Your task to perform on an android device: Open the phone app and click the voicemail tab. Image 0: 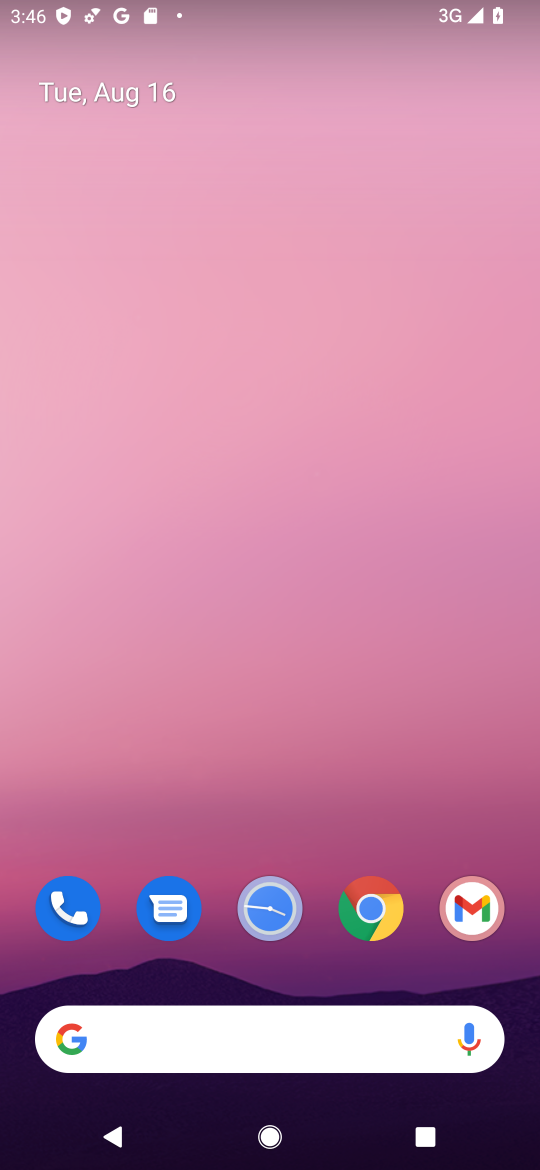
Step 0: drag from (288, 845) to (351, 235)
Your task to perform on an android device: Open the phone app and click the voicemail tab. Image 1: 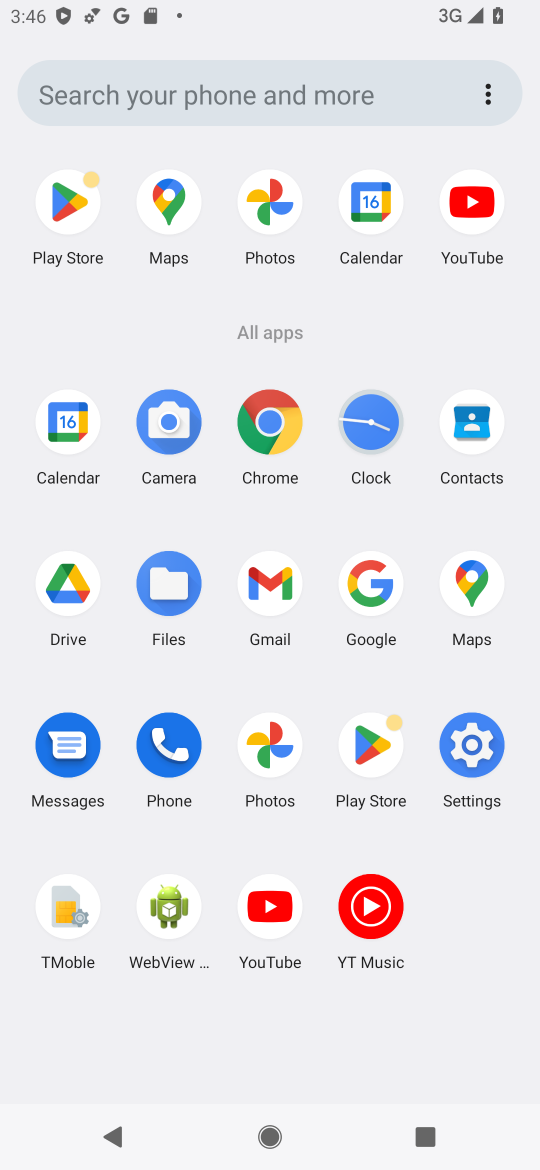
Step 1: click (171, 764)
Your task to perform on an android device: Open the phone app and click the voicemail tab. Image 2: 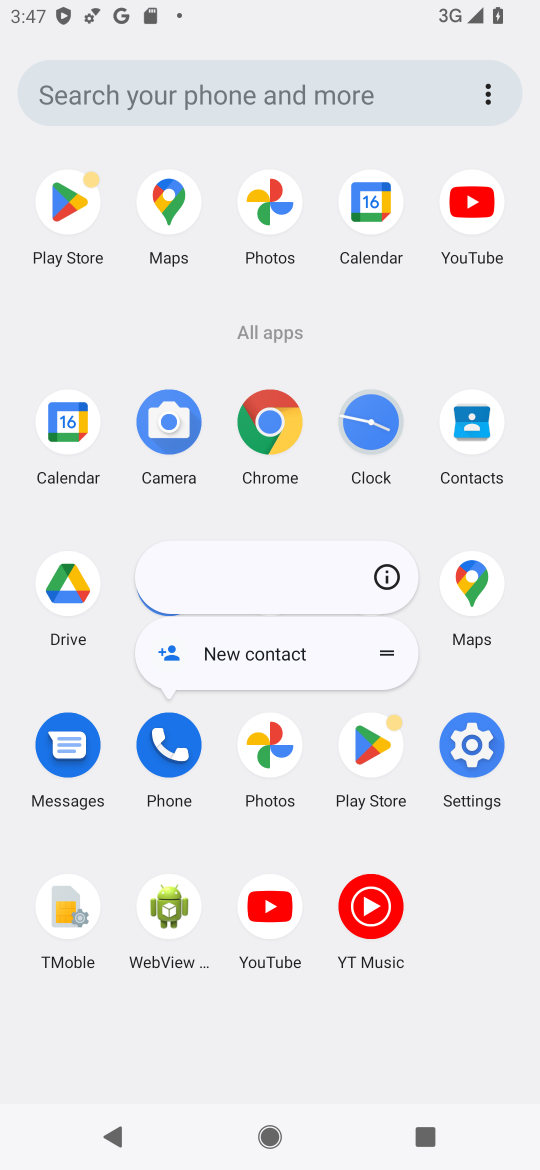
Step 2: click (184, 744)
Your task to perform on an android device: Open the phone app and click the voicemail tab. Image 3: 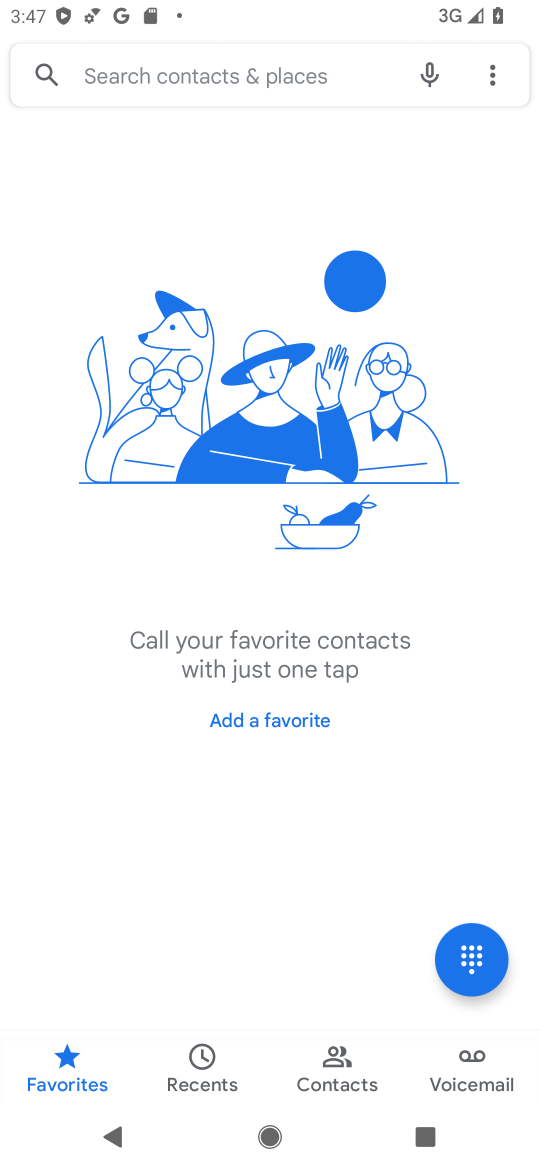
Step 3: click (495, 1081)
Your task to perform on an android device: Open the phone app and click the voicemail tab. Image 4: 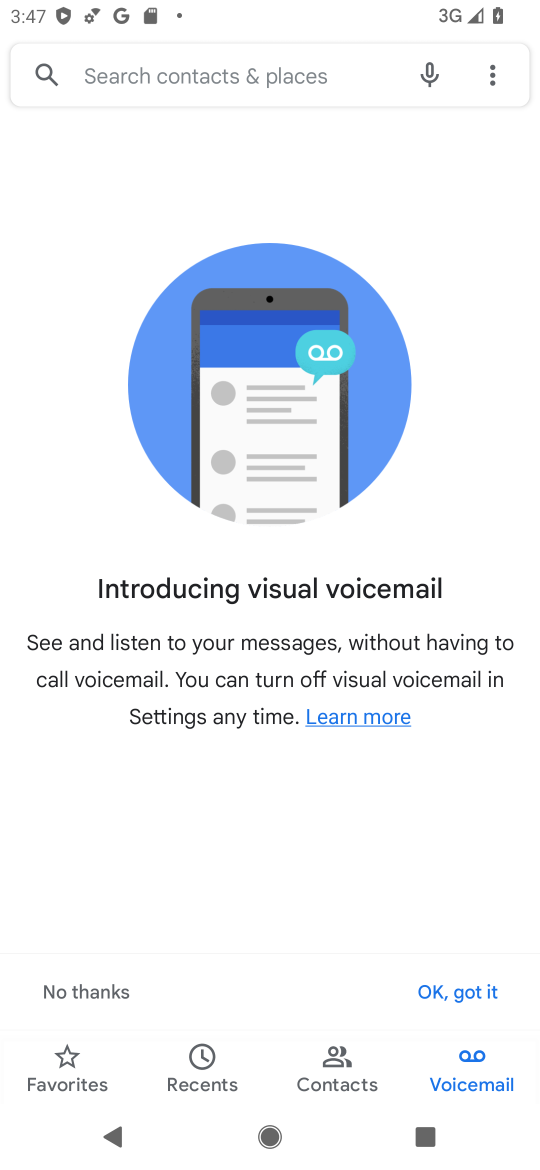
Step 4: task complete